Your task to perform on an android device: Do I have any events this weekend? Image 0: 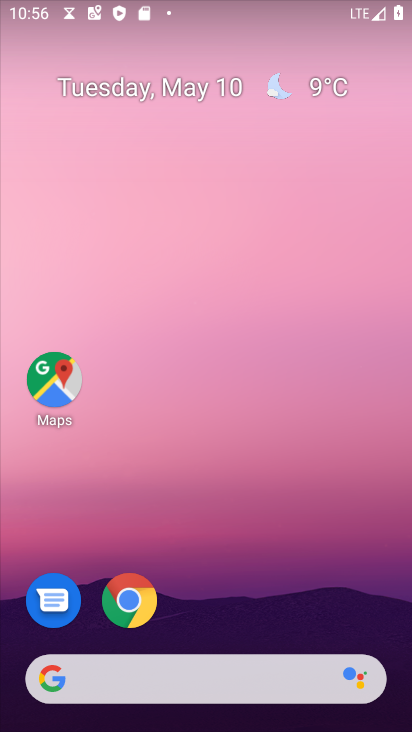
Step 0: drag from (261, 550) to (164, 111)
Your task to perform on an android device: Do I have any events this weekend? Image 1: 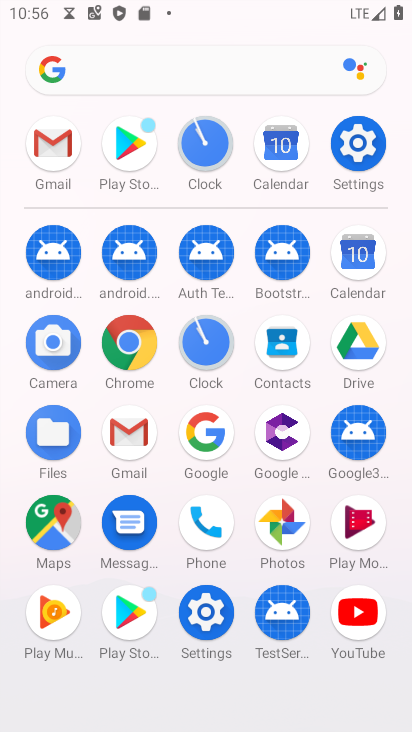
Step 1: click (356, 247)
Your task to perform on an android device: Do I have any events this weekend? Image 2: 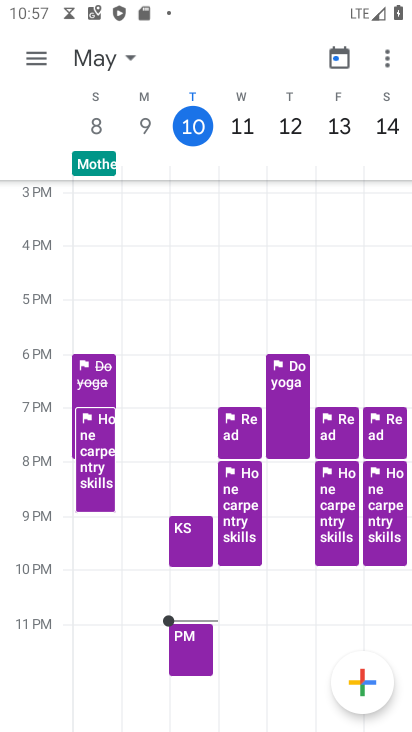
Step 2: task complete